Your task to perform on an android device: manage bookmarks in the chrome app Image 0: 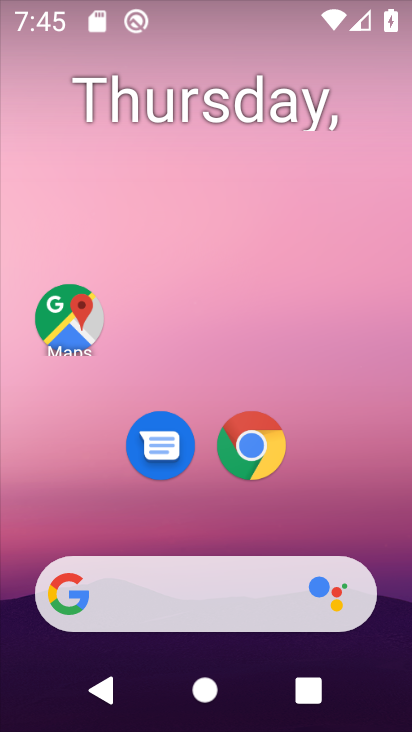
Step 0: drag from (344, 664) to (265, 95)
Your task to perform on an android device: manage bookmarks in the chrome app Image 1: 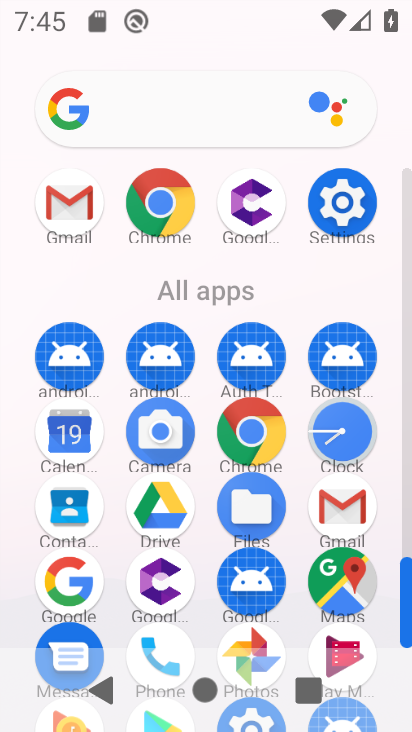
Step 1: click (245, 425)
Your task to perform on an android device: manage bookmarks in the chrome app Image 2: 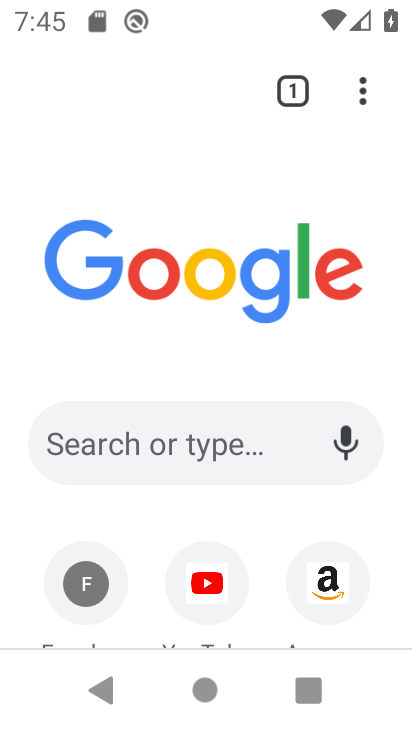
Step 2: click (362, 98)
Your task to perform on an android device: manage bookmarks in the chrome app Image 3: 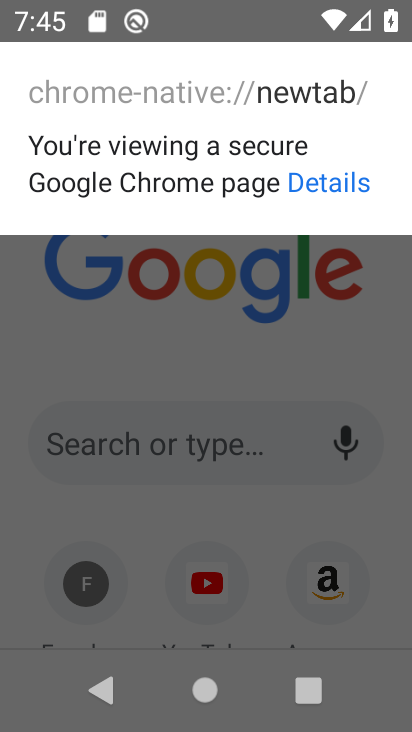
Step 3: click (353, 333)
Your task to perform on an android device: manage bookmarks in the chrome app Image 4: 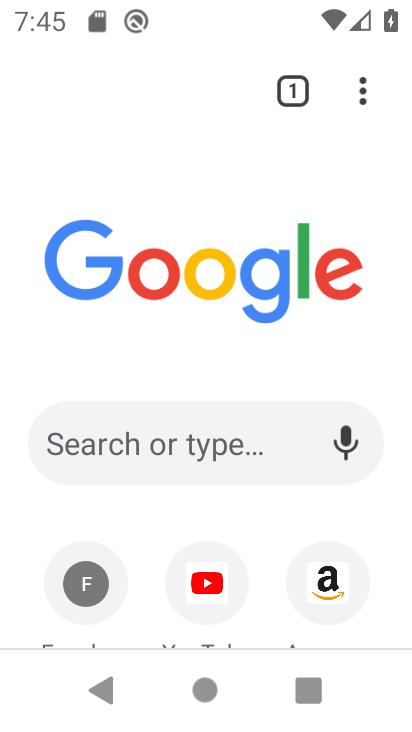
Step 4: drag from (363, 96) to (145, 342)
Your task to perform on an android device: manage bookmarks in the chrome app Image 5: 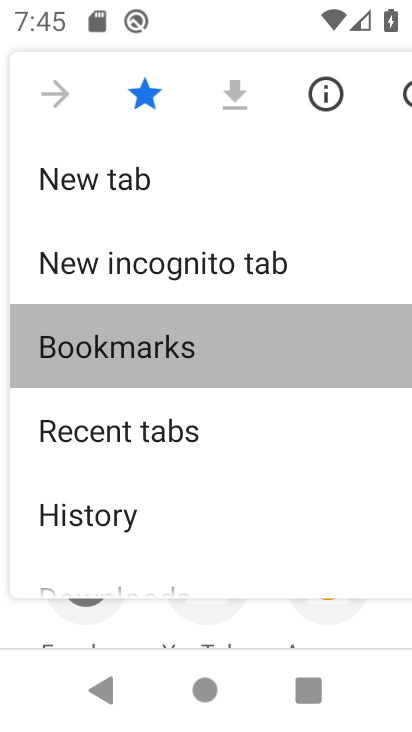
Step 5: click (155, 335)
Your task to perform on an android device: manage bookmarks in the chrome app Image 6: 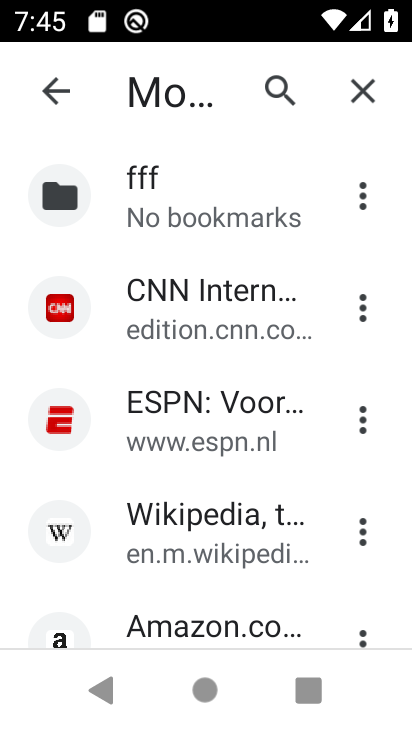
Step 6: click (354, 197)
Your task to perform on an android device: manage bookmarks in the chrome app Image 7: 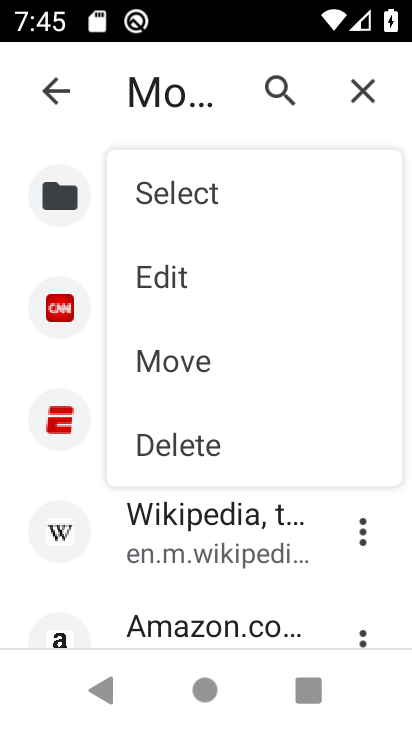
Step 7: click (185, 444)
Your task to perform on an android device: manage bookmarks in the chrome app Image 8: 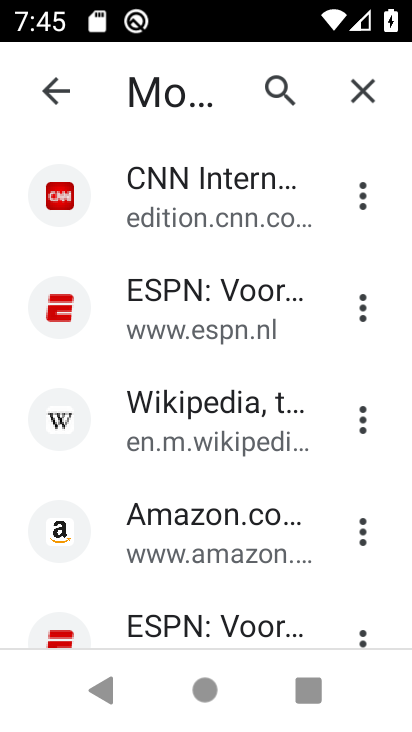
Step 8: task complete